Your task to perform on an android device: turn on the 24-hour format for clock Image 0: 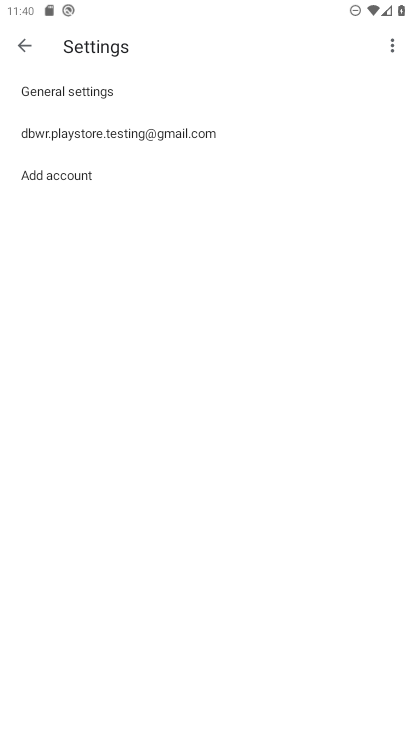
Step 0: press home button
Your task to perform on an android device: turn on the 24-hour format for clock Image 1: 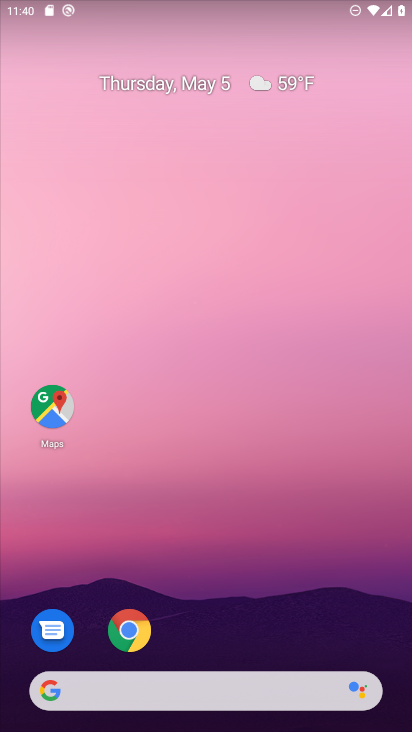
Step 1: drag from (312, 615) to (307, 90)
Your task to perform on an android device: turn on the 24-hour format for clock Image 2: 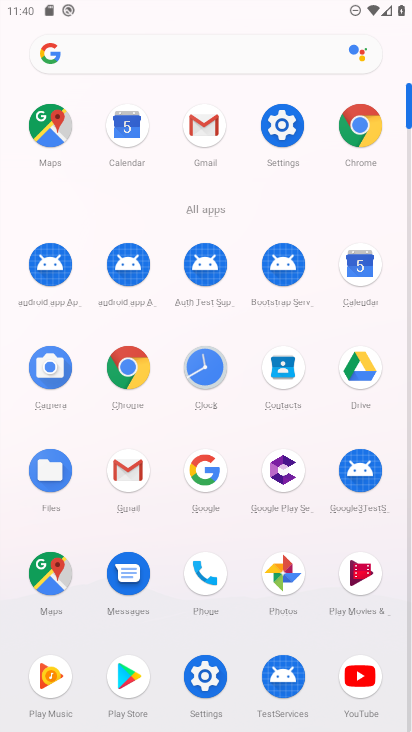
Step 2: click (192, 372)
Your task to perform on an android device: turn on the 24-hour format for clock Image 3: 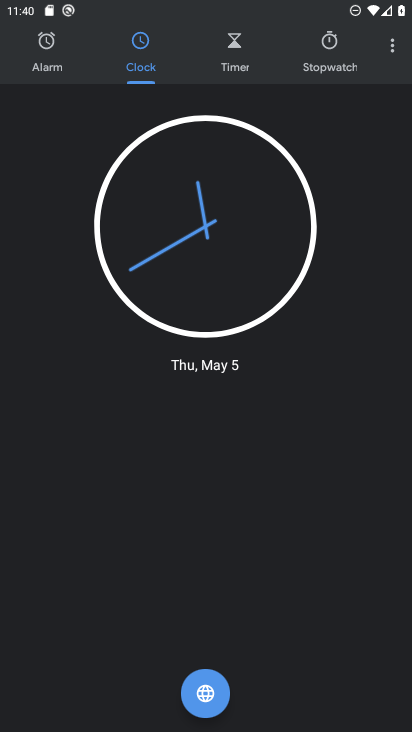
Step 3: click (393, 44)
Your task to perform on an android device: turn on the 24-hour format for clock Image 4: 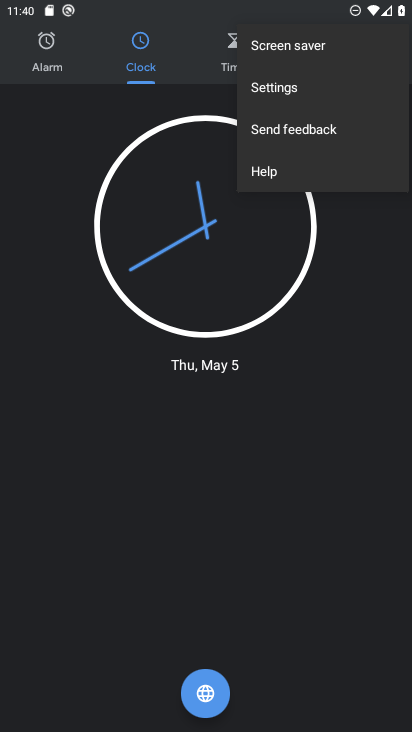
Step 4: click (296, 88)
Your task to perform on an android device: turn on the 24-hour format for clock Image 5: 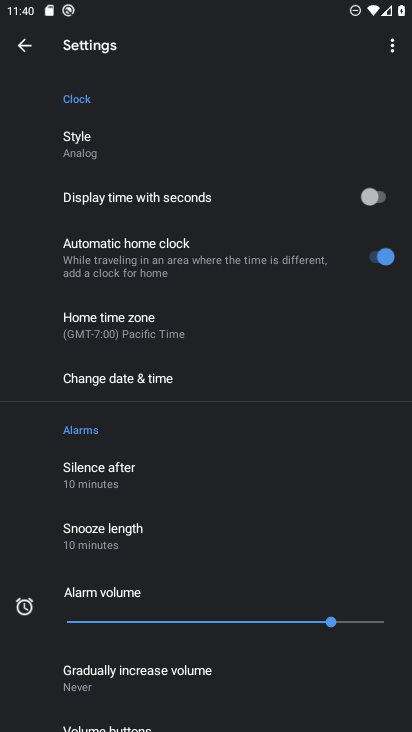
Step 5: click (149, 383)
Your task to perform on an android device: turn on the 24-hour format for clock Image 6: 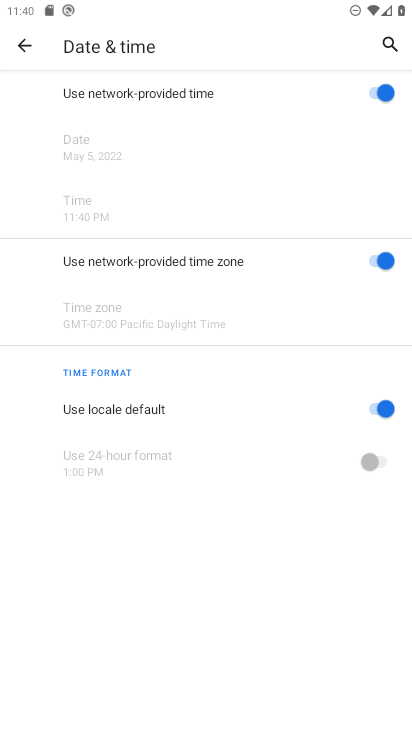
Step 6: click (370, 409)
Your task to perform on an android device: turn on the 24-hour format for clock Image 7: 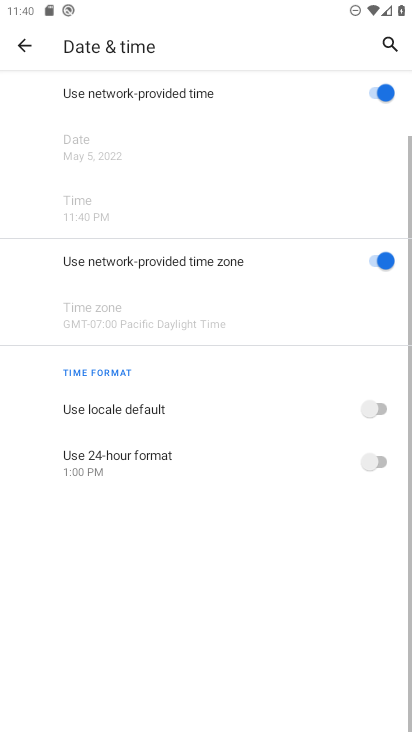
Step 7: click (380, 461)
Your task to perform on an android device: turn on the 24-hour format for clock Image 8: 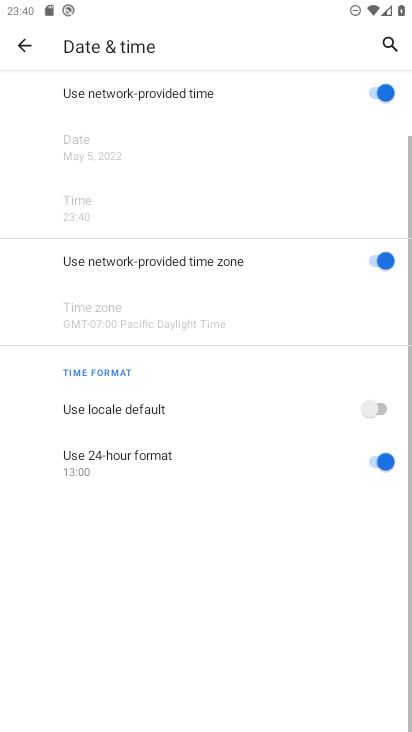
Step 8: task complete